Your task to perform on an android device: toggle data saver in the chrome app Image 0: 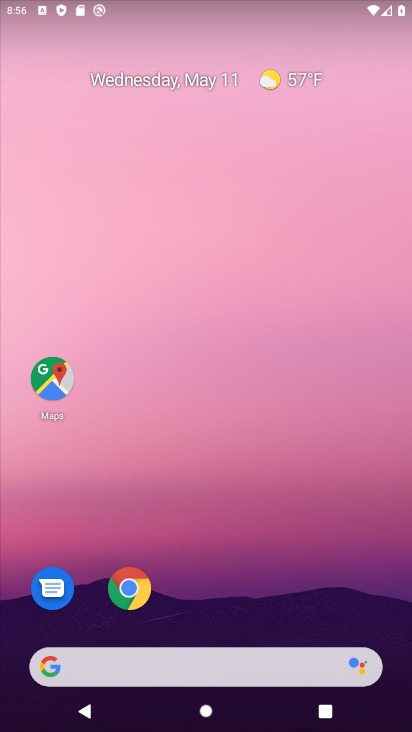
Step 0: drag from (268, 717) to (203, 249)
Your task to perform on an android device: toggle data saver in the chrome app Image 1: 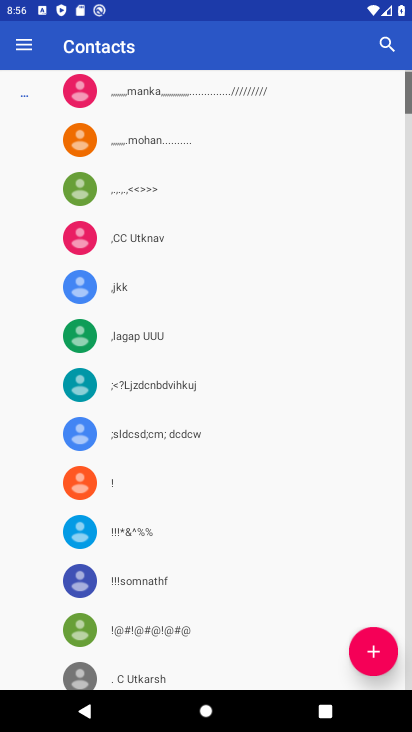
Step 1: press home button
Your task to perform on an android device: toggle data saver in the chrome app Image 2: 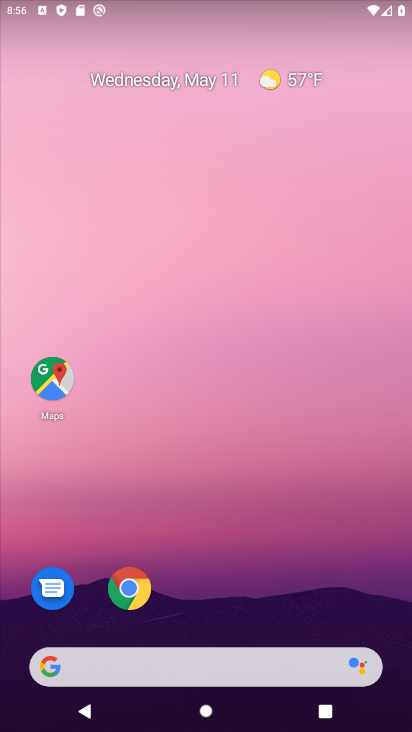
Step 2: drag from (267, 714) to (232, 197)
Your task to perform on an android device: toggle data saver in the chrome app Image 3: 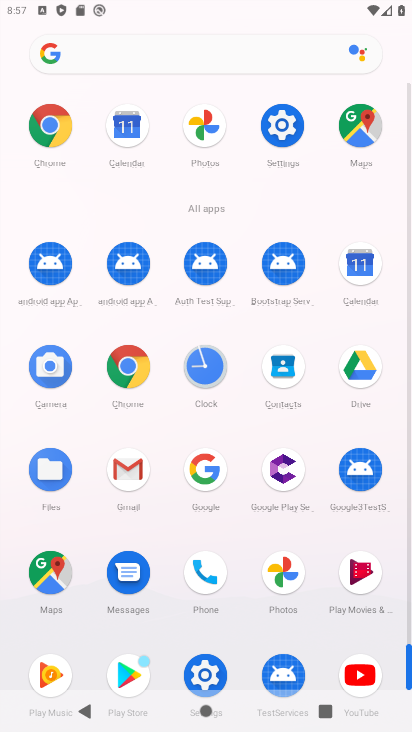
Step 3: click (67, 135)
Your task to perform on an android device: toggle data saver in the chrome app Image 4: 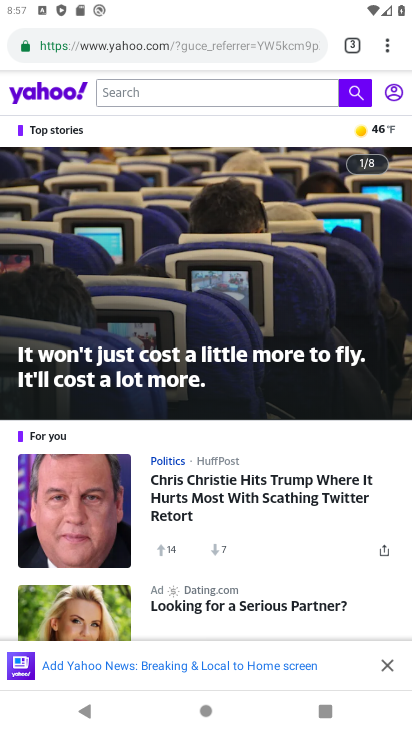
Step 4: click (383, 45)
Your task to perform on an android device: toggle data saver in the chrome app Image 5: 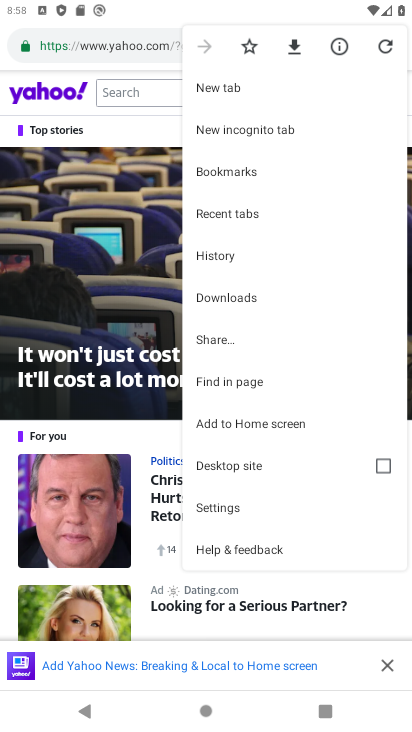
Step 5: click (237, 513)
Your task to perform on an android device: toggle data saver in the chrome app Image 6: 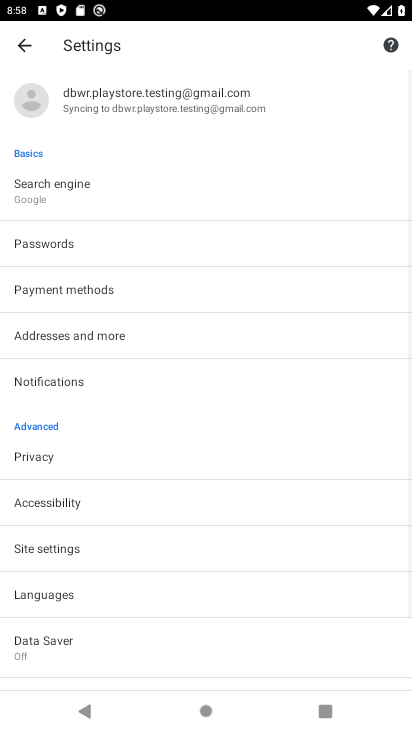
Step 6: click (80, 636)
Your task to perform on an android device: toggle data saver in the chrome app Image 7: 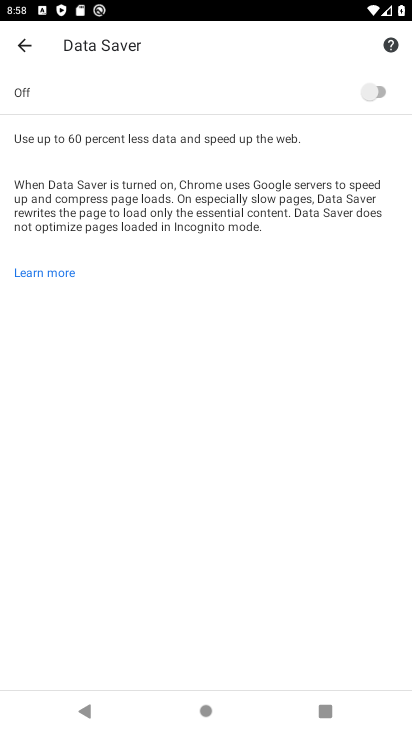
Step 7: click (373, 93)
Your task to perform on an android device: toggle data saver in the chrome app Image 8: 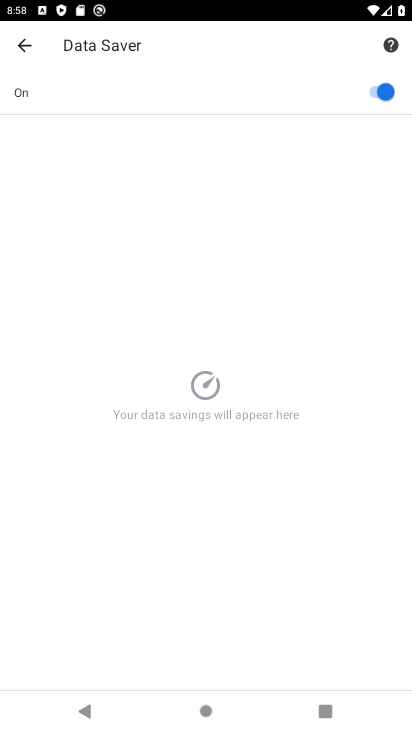
Step 8: task complete